Your task to perform on an android device: toggle location history Image 0: 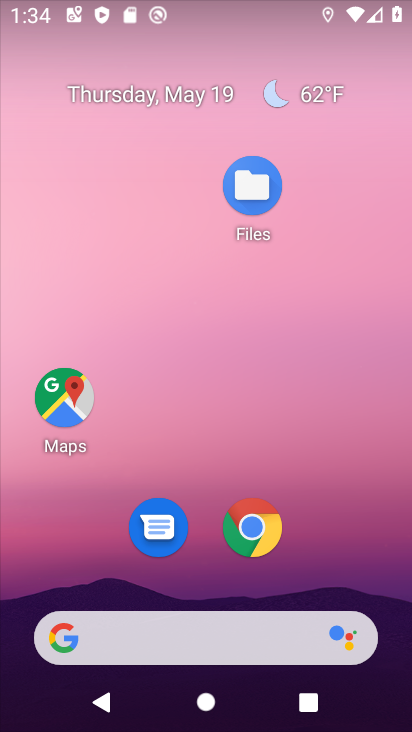
Step 0: drag from (357, 414) to (314, 9)
Your task to perform on an android device: toggle location history Image 1: 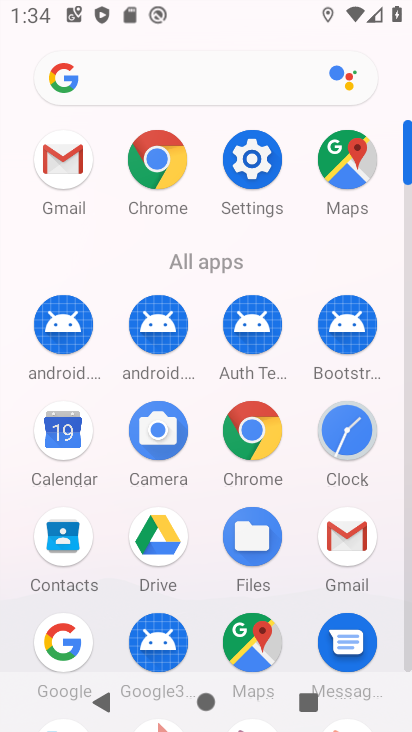
Step 1: click (247, 169)
Your task to perform on an android device: toggle location history Image 2: 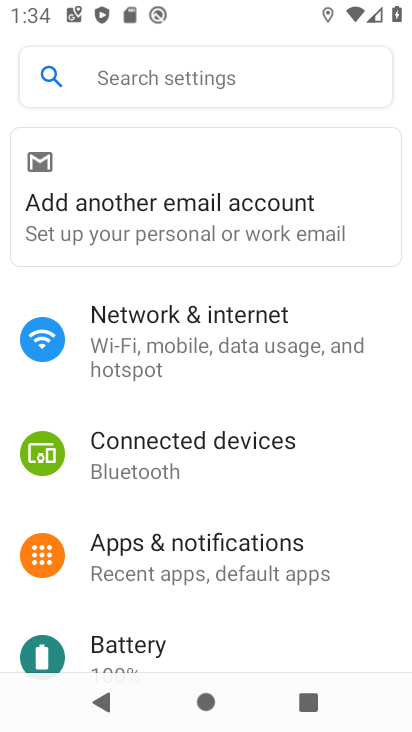
Step 2: drag from (302, 526) to (316, 163)
Your task to perform on an android device: toggle location history Image 3: 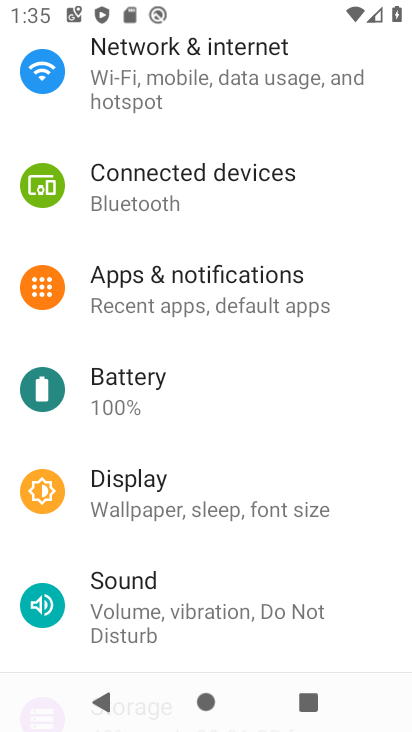
Step 3: drag from (237, 565) to (271, 151)
Your task to perform on an android device: toggle location history Image 4: 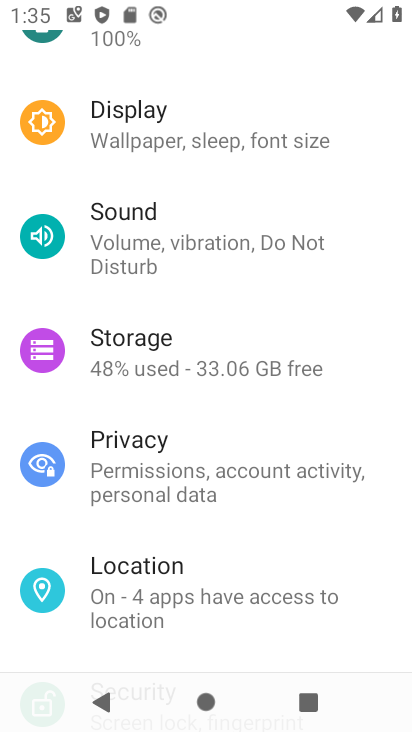
Step 4: click (213, 599)
Your task to perform on an android device: toggle location history Image 5: 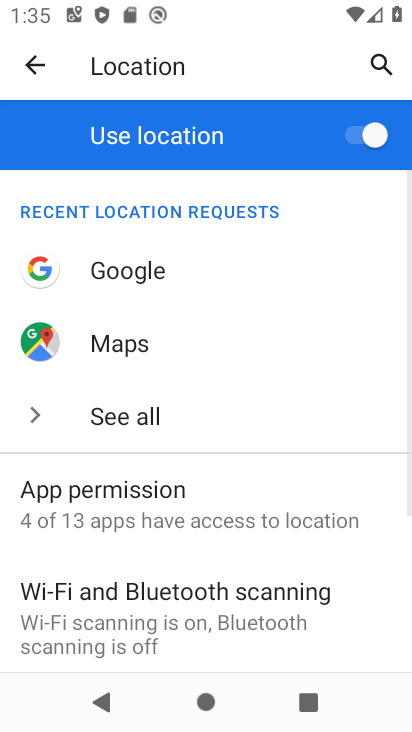
Step 5: drag from (357, 632) to (364, 307)
Your task to perform on an android device: toggle location history Image 6: 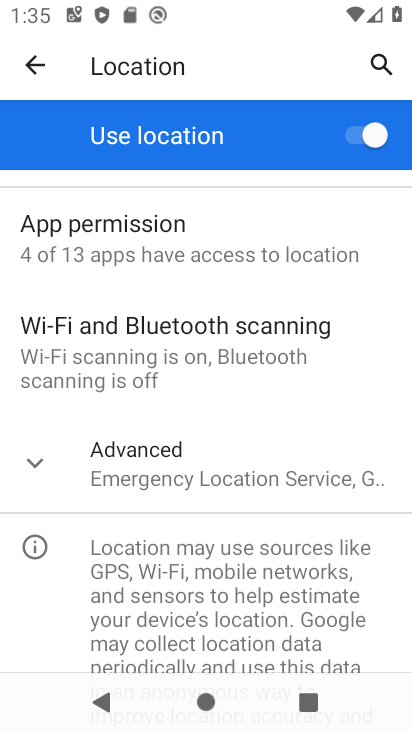
Step 6: click (309, 470)
Your task to perform on an android device: toggle location history Image 7: 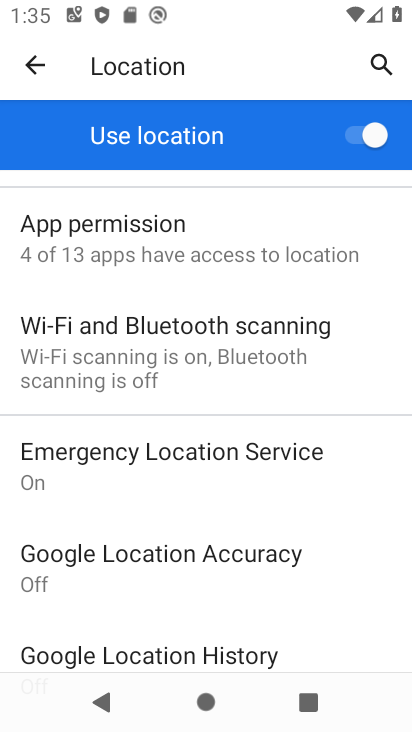
Step 7: drag from (317, 588) to (329, 297)
Your task to perform on an android device: toggle location history Image 8: 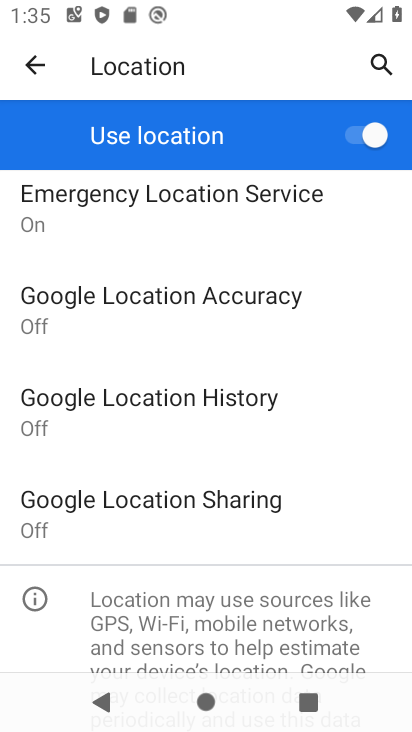
Step 8: click (210, 414)
Your task to perform on an android device: toggle location history Image 9: 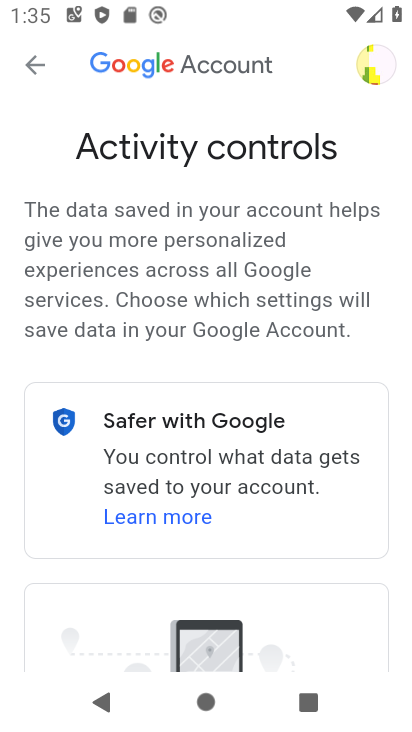
Step 9: drag from (305, 615) to (306, 273)
Your task to perform on an android device: toggle location history Image 10: 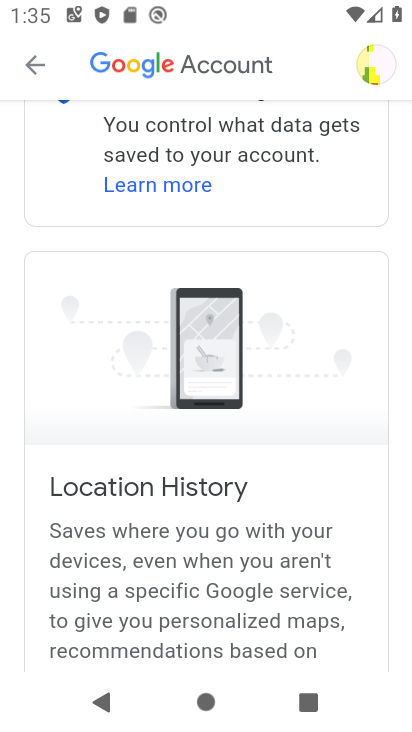
Step 10: drag from (289, 436) to (294, 281)
Your task to perform on an android device: toggle location history Image 11: 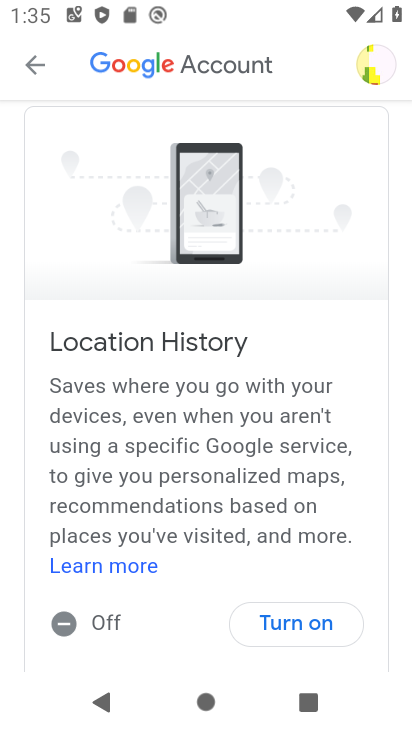
Step 11: click (281, 624)
Your task to perform on an android device: toggle location history Image 12: 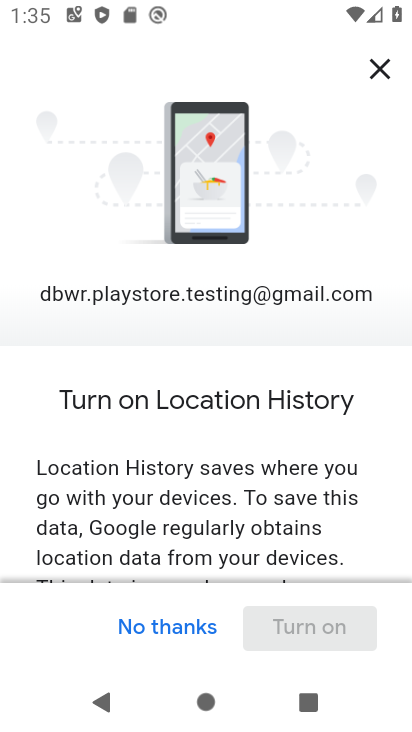
Step 12: click (131, 628)
Your task to perform on an android device: toggle location history Image 13: 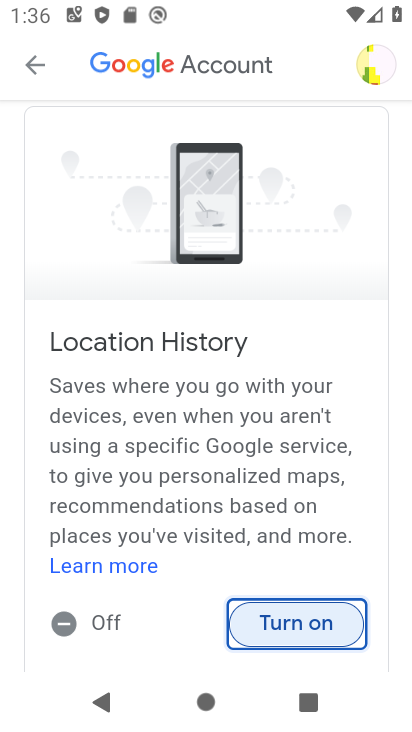
Step 13: task complete